Your task to perform on an android device: turn on the 12-hour format for clock Image 0: 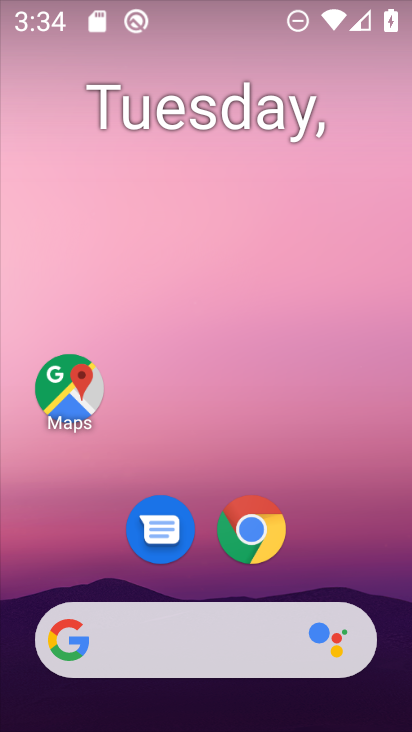
Step 0: drag from (265, 572) to (230, 232)
Your task to perform on an android device: turn on the 12-hour format for clock Image 1: 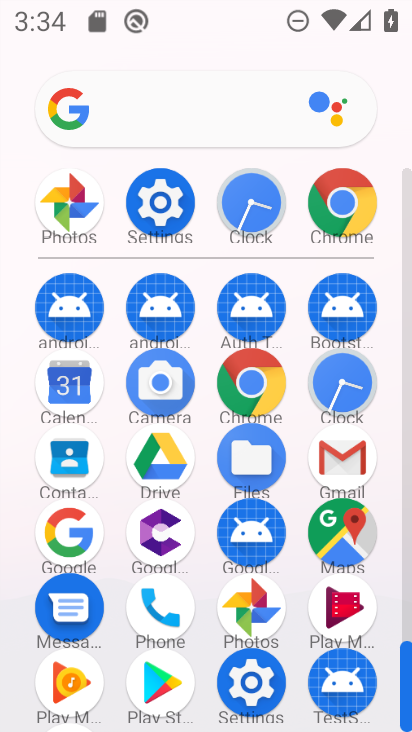
Step 1: click (347, 382)
Your task to perform on an android device: turn on the 12-hour format for clock Image 2: 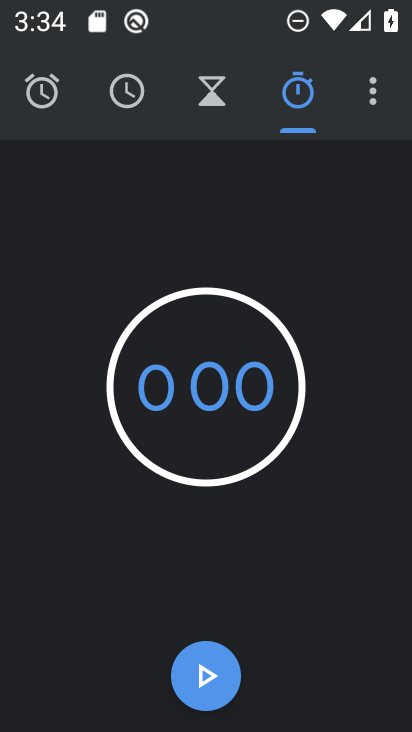
Step 2: click (358, 73)
Your task to perform on an android device: turn on the 12-hour format for clock Image 3: 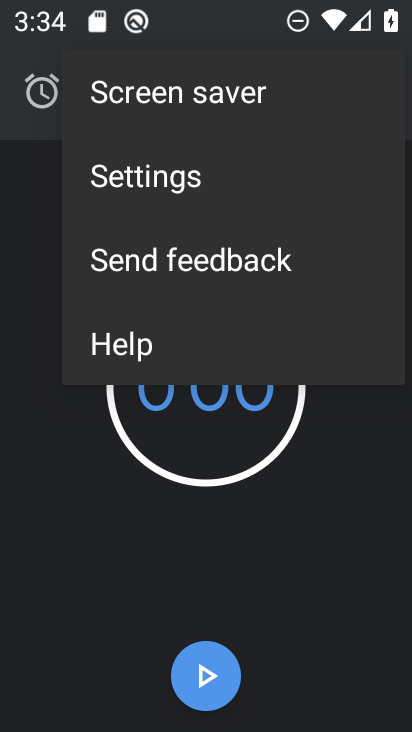
Step 3: click (175, 336)
Your task to perform on an android device: turn on the 12-hour format for clock Image 4: 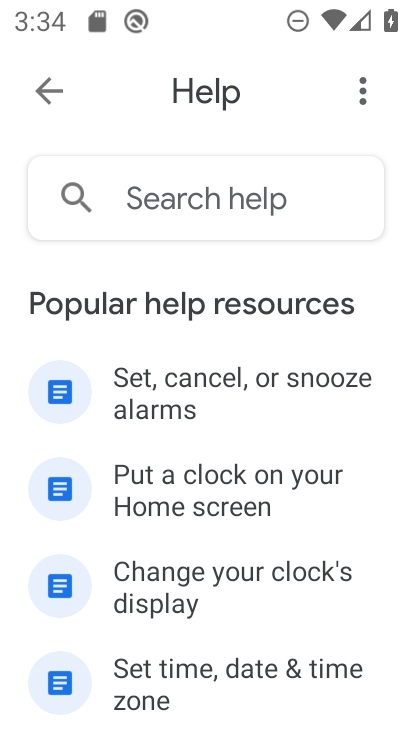
Step 4: press back button
Your task to perform on an android device: turn on the 12-hour format for clock Image 5: 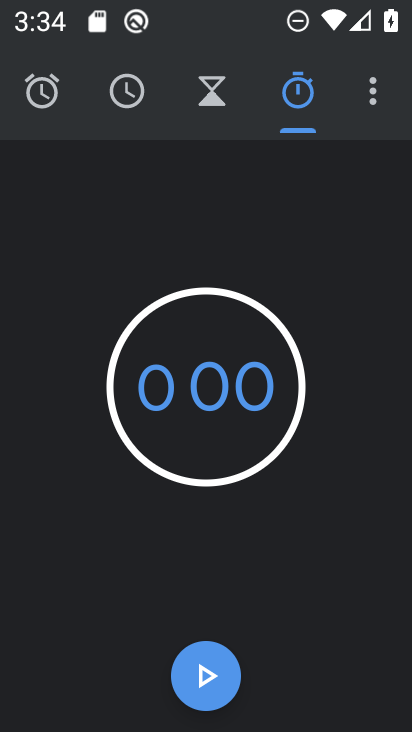
Step 5: click (355, 81)
Your task to perform on an android device: turn on the 12-hour format for clock Image 6: 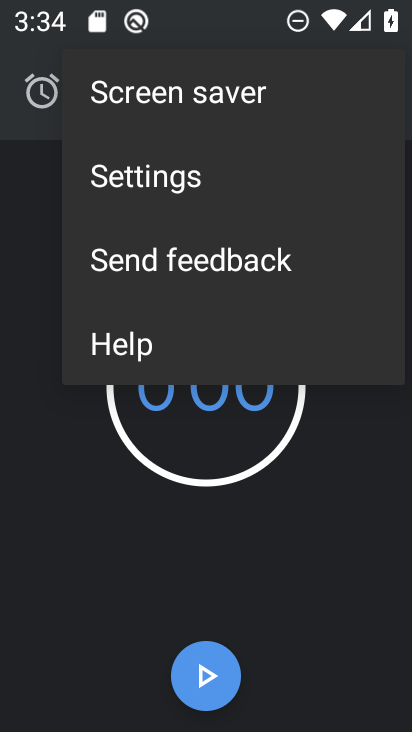
Step 6: click (135, 168)
Your task to perform on an android device: turn on the 12-hour format for clock Image 7: 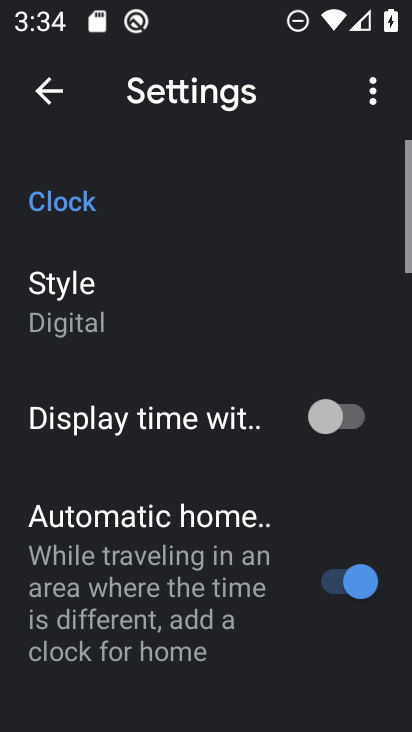
Step 7: drag from (206, 570) to (230, 200)
Your task to perform on an android device: turn on the 12-hour format for clock Image 8: 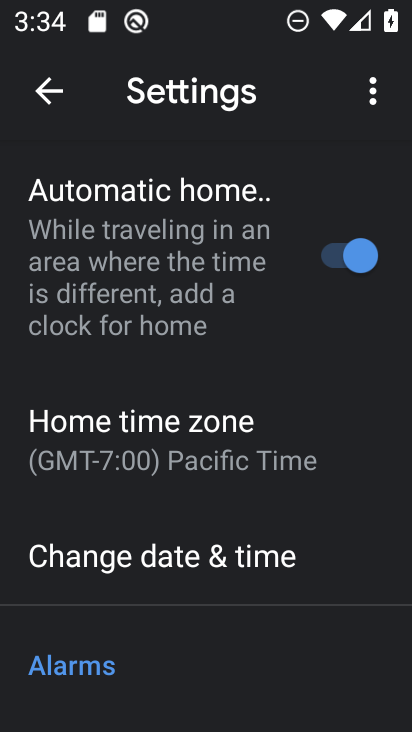
Step 8: click (172, 557)
Your task to perform on an android device: turn on the 12-hour format for clock Image 9: 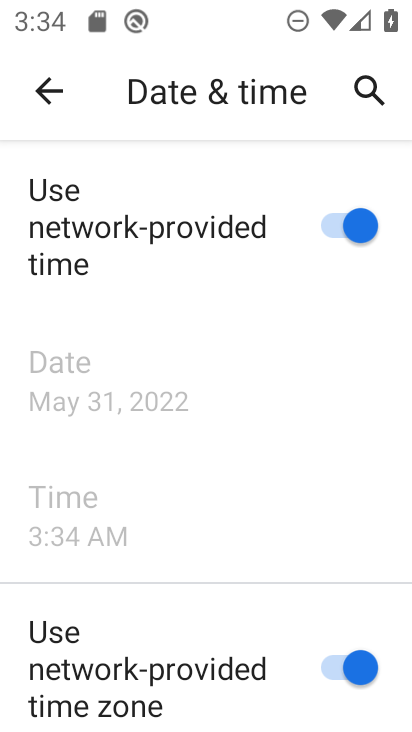
Step 9: drag from (281, 609) to (307, 320)
Your task to perform on an android device: turn on the 12-hour format for clock Image 10: 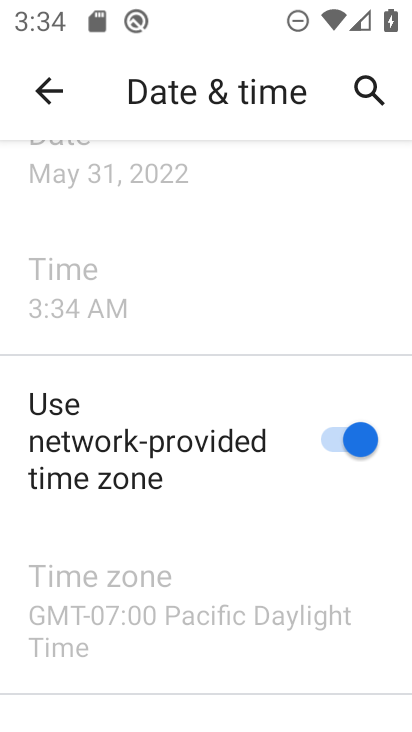
Step 10: drag from (299, 565) to (307, 200)
Your task to perform on an android device: turn on the 12-hour format for clock Image 11: 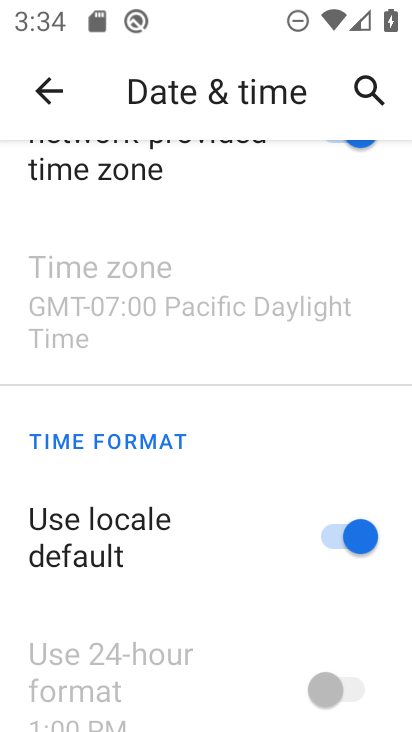
Step 11: drag from (256, 595) to (247, 347)
Your task to perform on an android device: turn on the 12-hour format for clock Image 12: 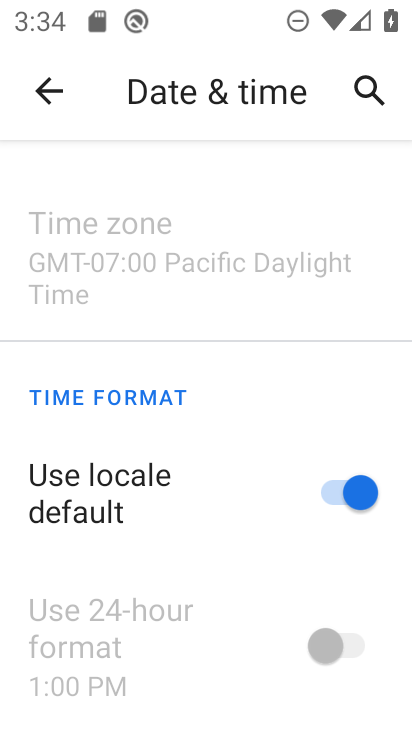
Step 12: click (319, 495)
Your task to perform on an android device: turn on the 12-hour format for clock Image 13: 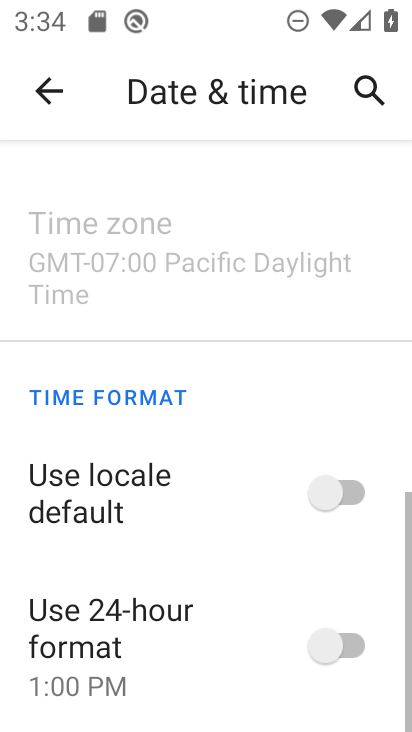
Step 13: click (342, 655)
Your task to perform on an android device: turn on the 12-hour format for clock Image 14: 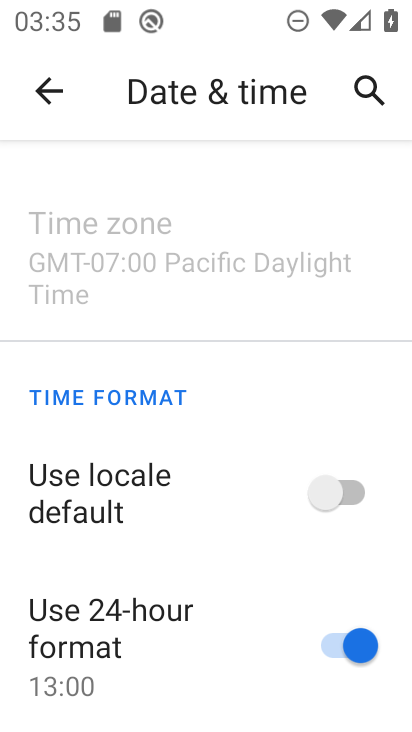
Step 14: task complete